Your task to perform on an android device: Show me popular games on the Play Store Image 0: 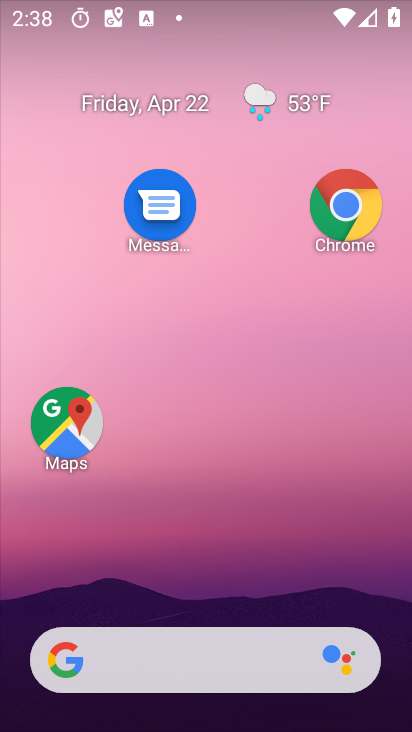
Step 0: drag from (176, 628) to (192, 283)
Your task to perform on an android device: Show me popular games on the Play Store Image 1: 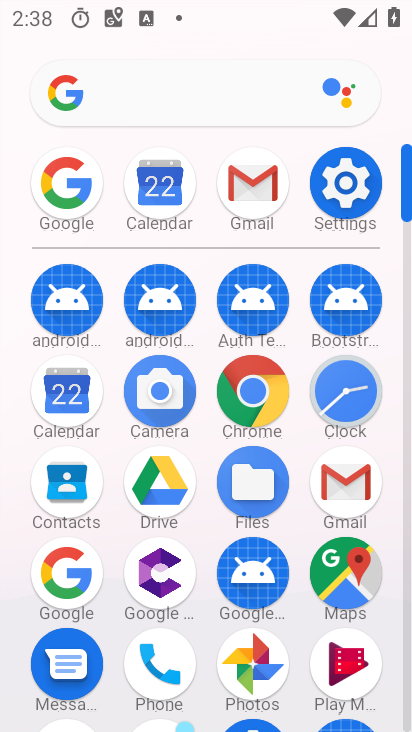
Step 1: drag from (204, 629) to (205, 330)
Your task to perform on an android device: Show me popular games on the Play Store Image 2: 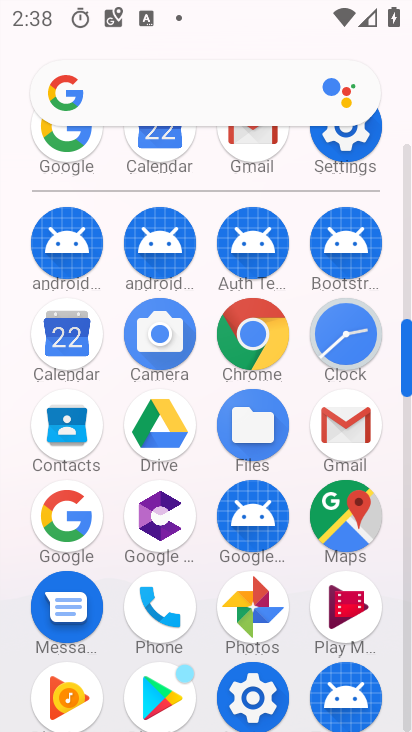
Step 2: click (164, 697)
Your task to perform on an android device: Show me popular games on the Play Store Image 3: 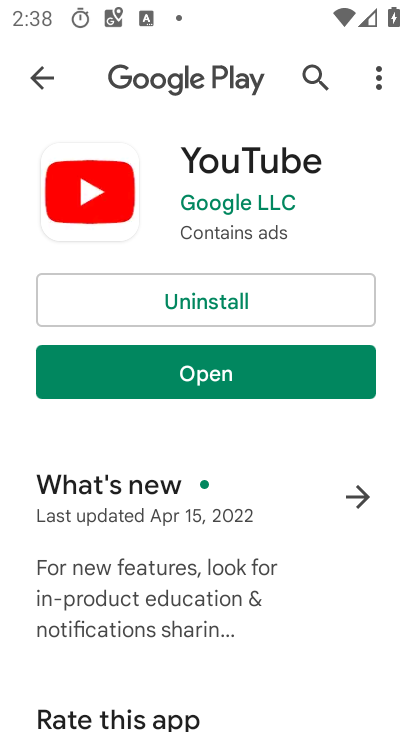
Step 3: click (40, 79)
Your task to perform on an android device: Show me popular games on the Play Store Image 4: 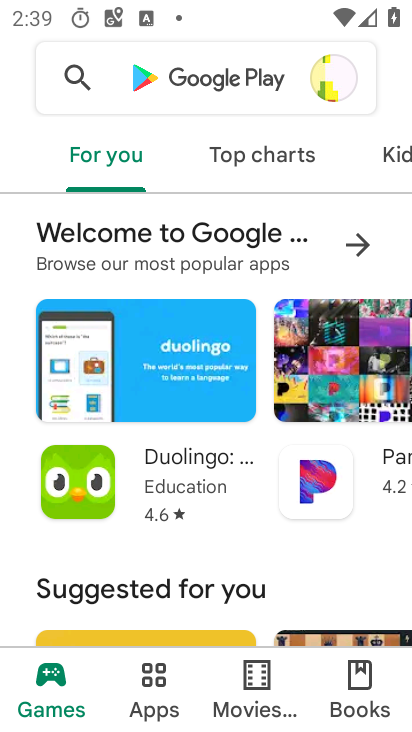
Step 4: click (236, 70)
Your task to perform on an android device: Show me popular games on the Play Store Image 5: 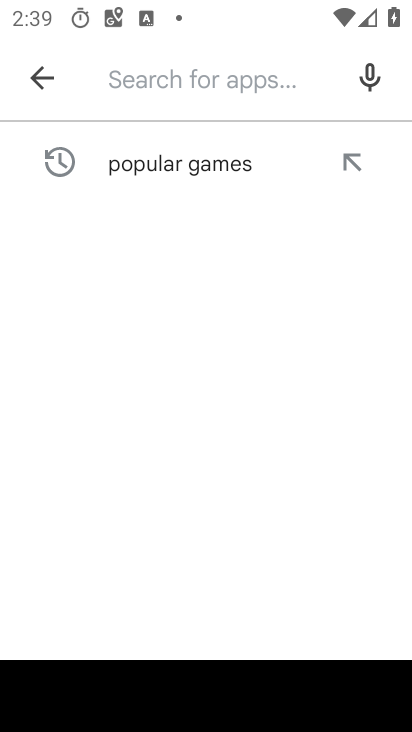
Step 5: click (224, 168)
Your task to perform on an android device: Show me popular games on the Play Store Image 6: 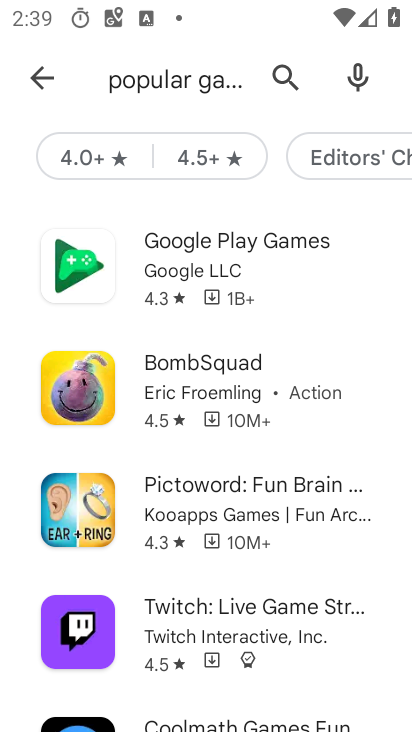
Step 6: task complete